Your task to perform on an android device: change the clock display to analog Image 0: 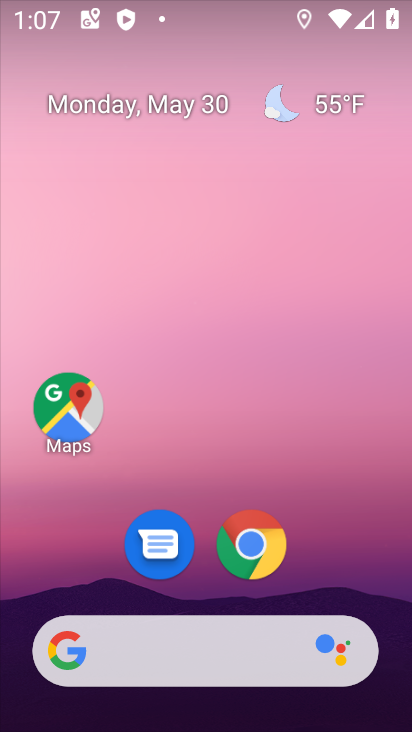
Step 0: drag from (322, 586) to (270, 69)
Your task to perform on an android device: change the clock display to analog Image 1: 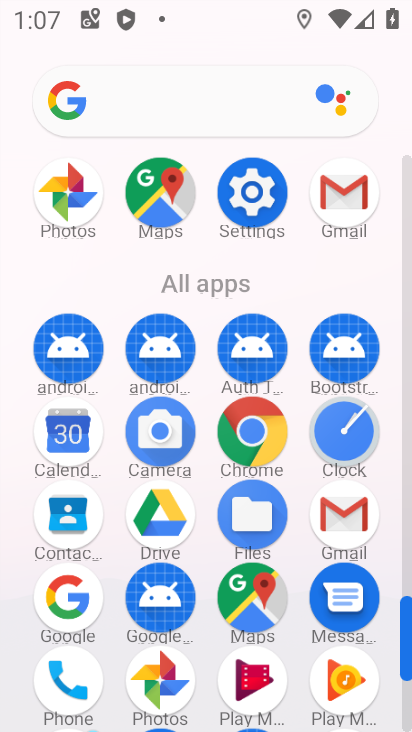
Step 1: click (324, 446)
Your task to perform on an android device: change the clock display to analog Image 2: 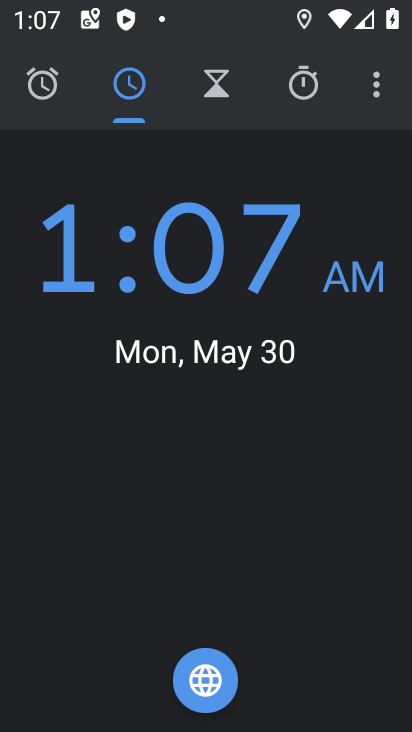
Step 2: click (382, 92)
Your task to perform on an android device: change the clock display to analog Image 3: 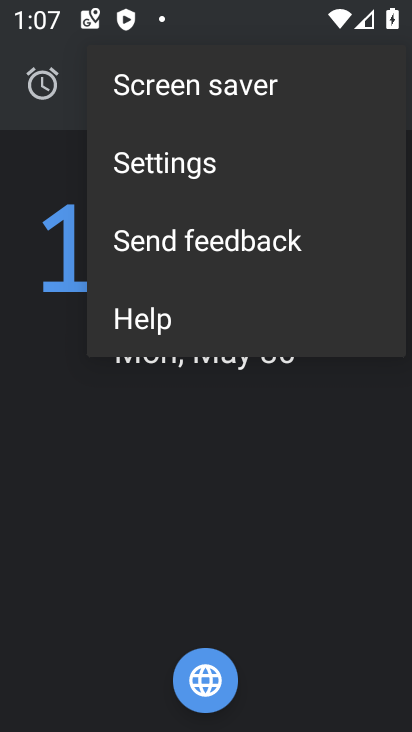
Step 3: click (160, 164)
Your task to perform on an android device: change the clock display to analog Image 4: 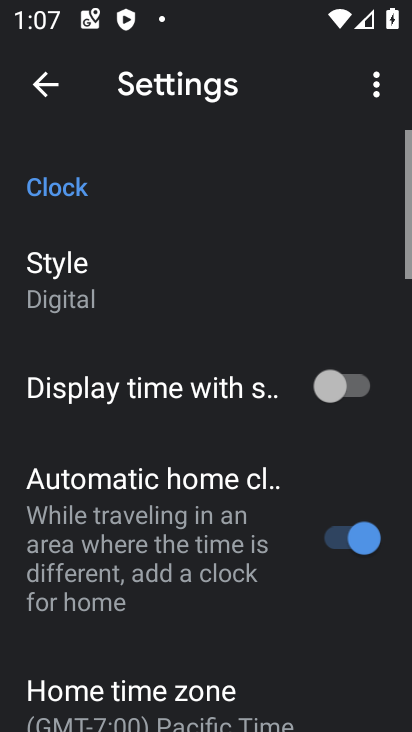
Step 4: click (149, 256)
Your task to perform on an android device: change the clock display to analog Image 5: 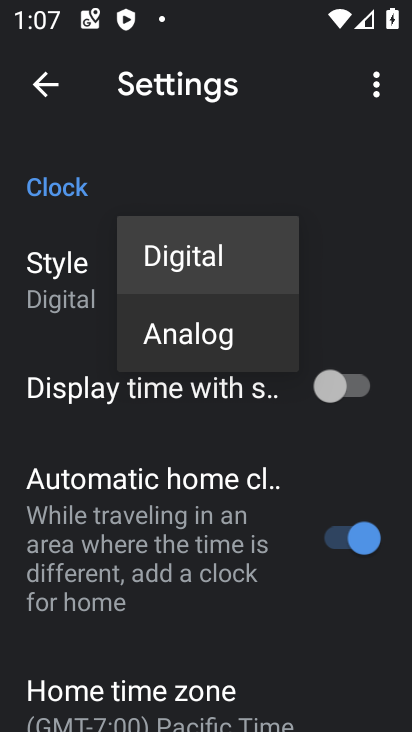
Step 5: click (156, 334)
Your task to perform on an android device: change the clock display to analog Image 6: 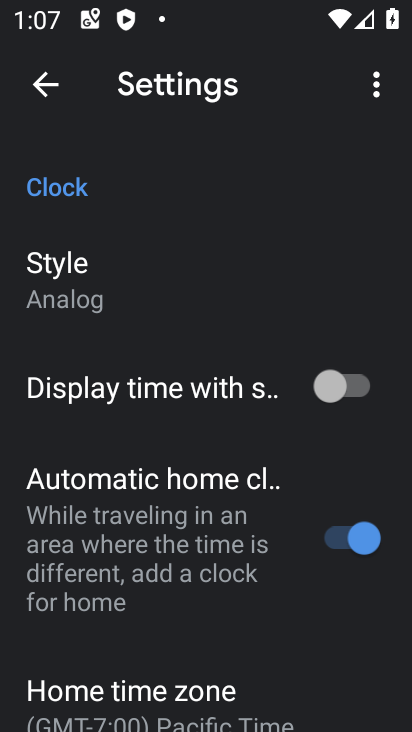
Step 6: task complete